Your task to perform on an android device: check android version Image 0: 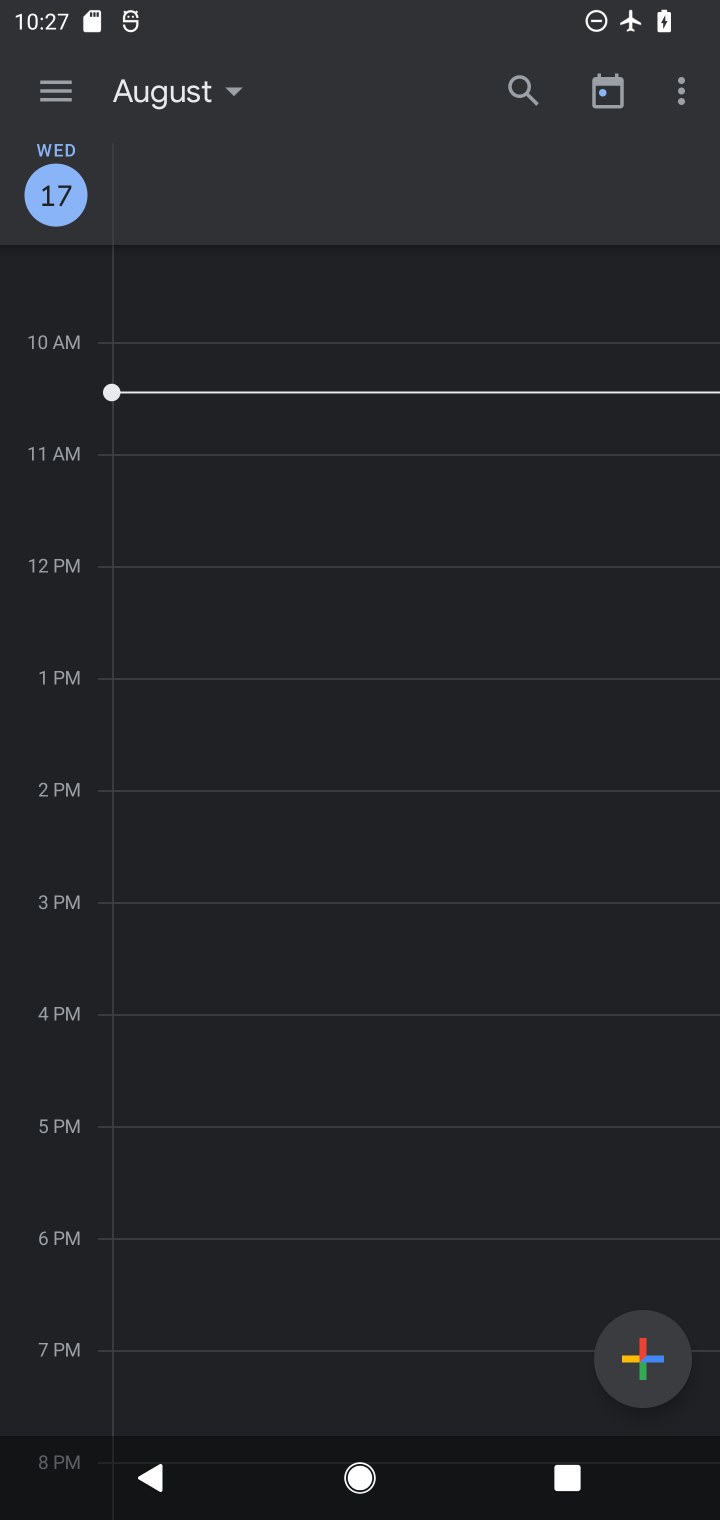
Step 0: press home button
Your task to perform on an android device: check android version Image 1: 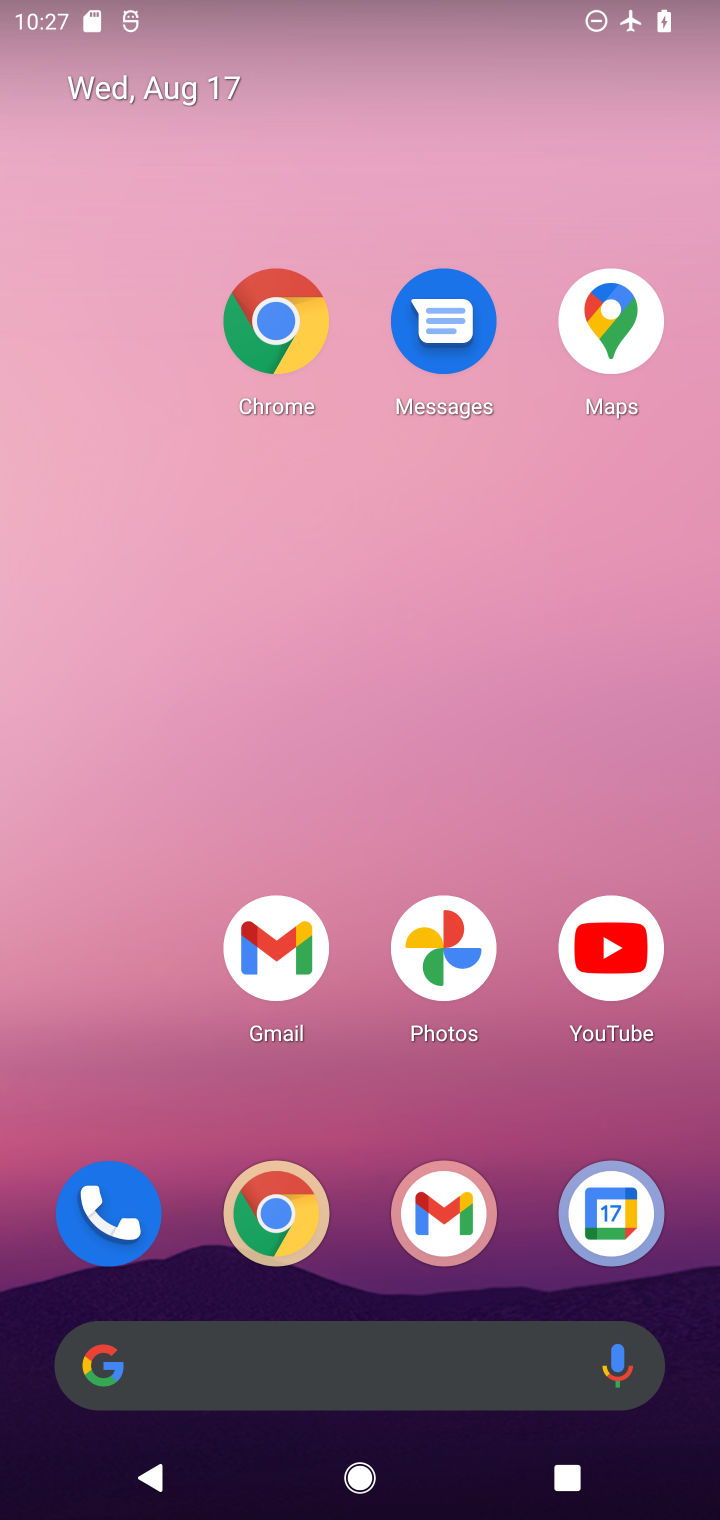
Step 1: drag from (399, 1320) to (402, 222)
Your task to perform on an android device: check android version Image 2: 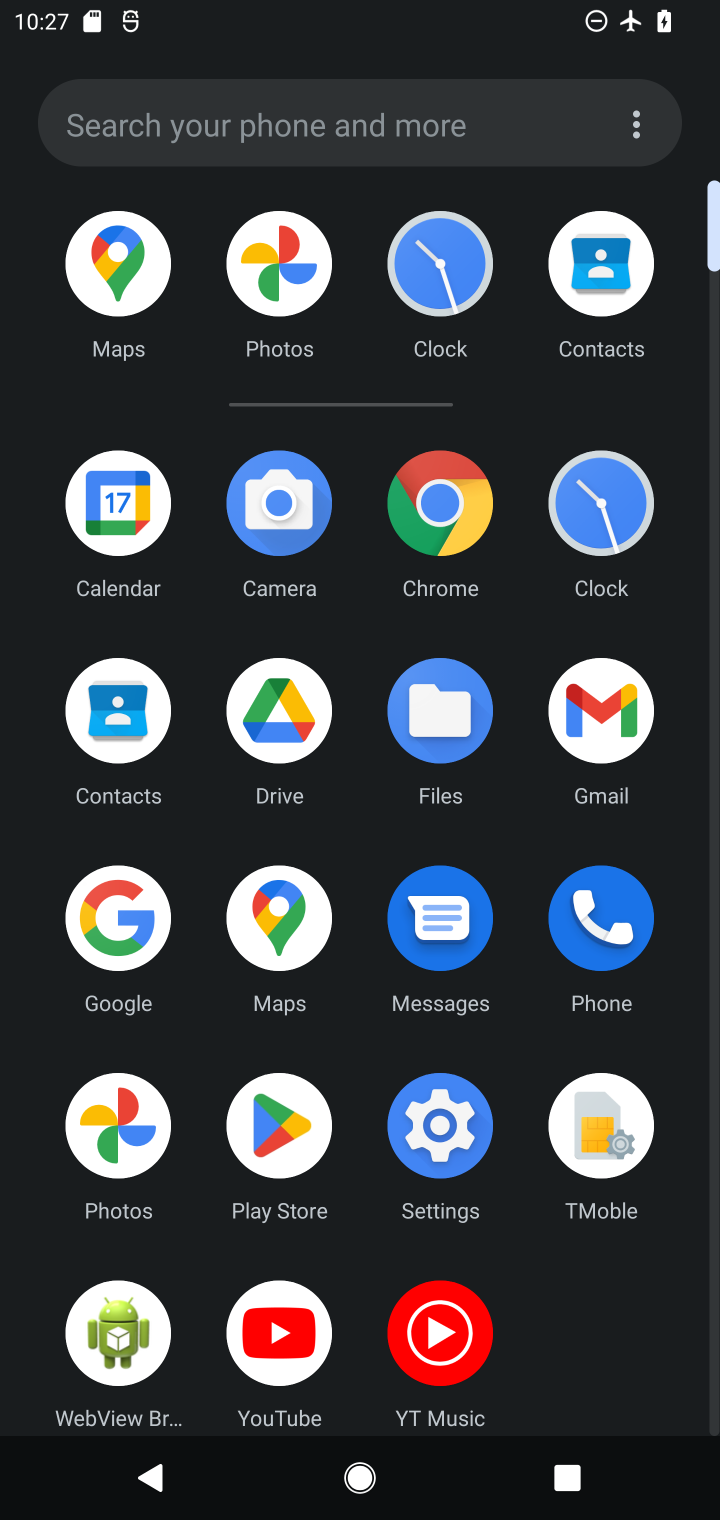
Step 2: click (455, 1101)
Your task to perform on an android device: check android version Image 3: 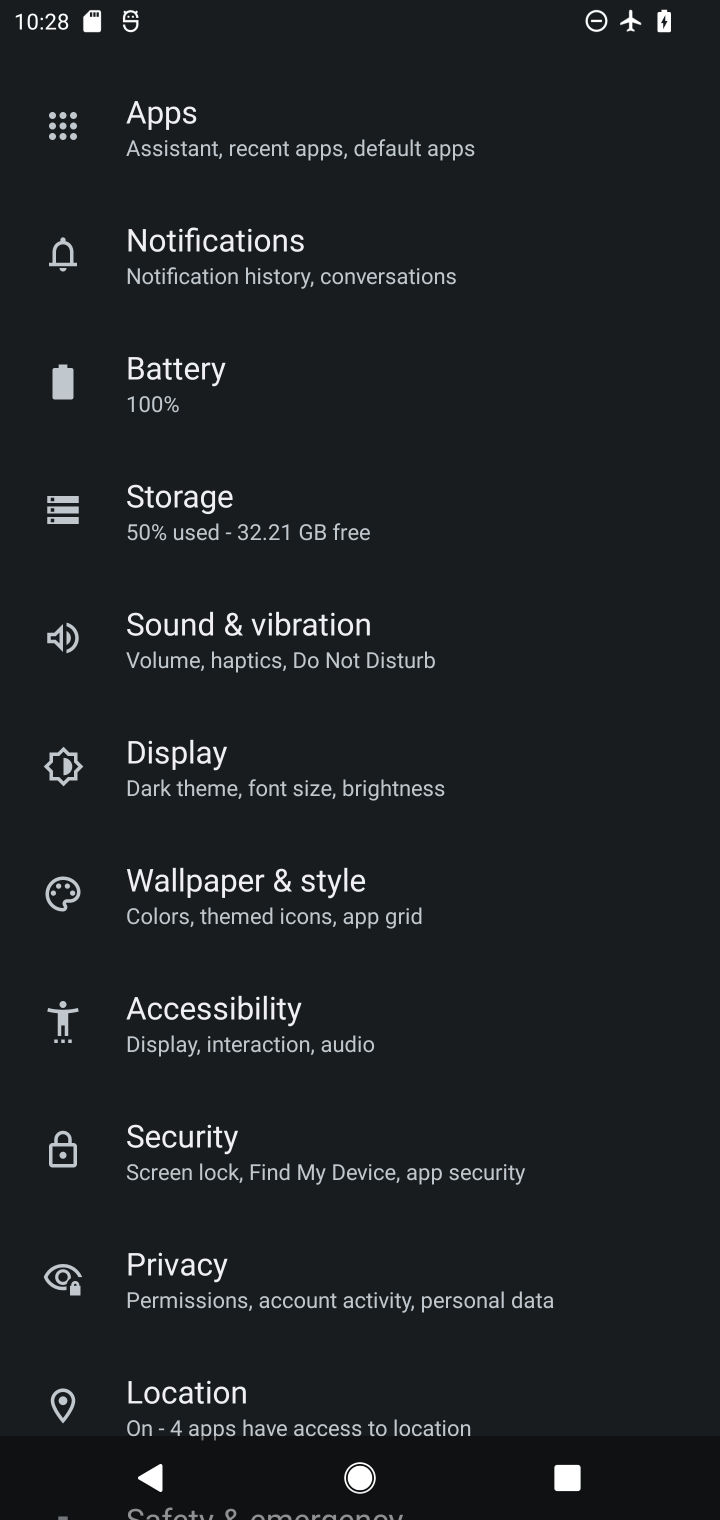
Step 3: task complete